Your task to perform on an android device: Go to wifi settings Image 0: 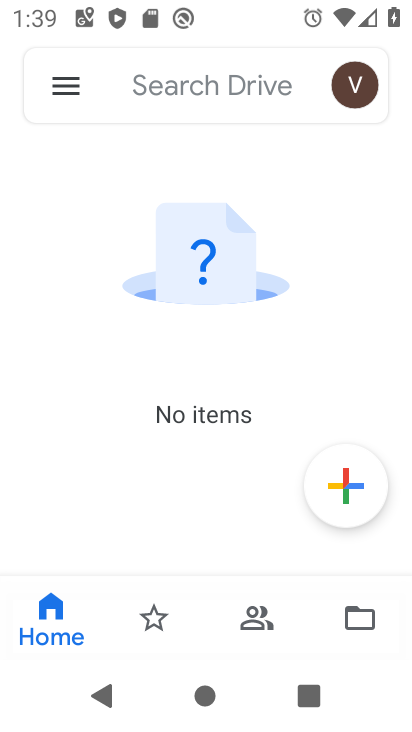
Step 0: press back button
Your task to perform on an android device: Go to wifi settings Image 1: 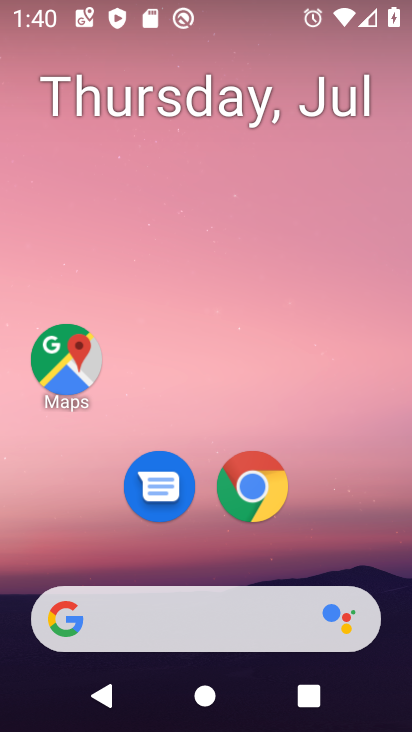
Step 1: drag from (66, 12) to (133, 315)
Your task to perform on an android device: Go to wifi settings Image 2: 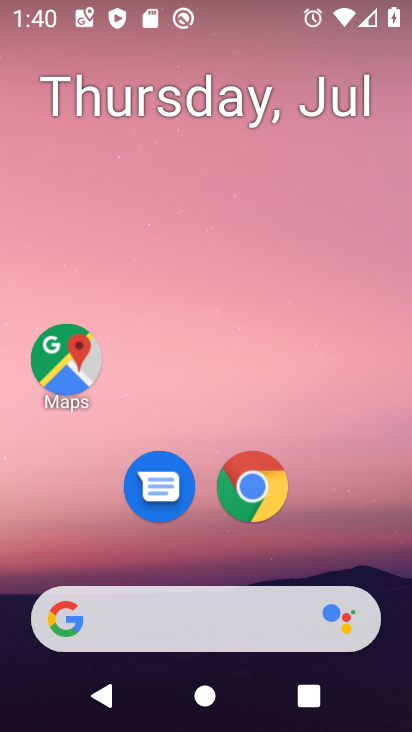
Step 2: drag from (119, 4) to (243, 551)
Your task to perform on an android device: Go to wifi settings Image 3: 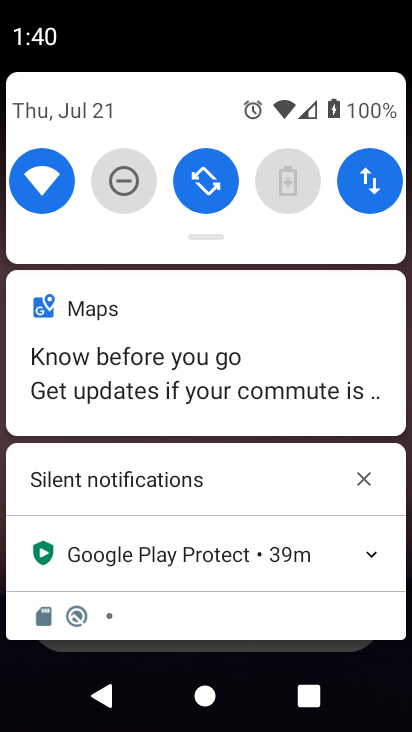
Step 3: click (38, 187)
Your task to perform on an android device: Go to wifi settings Image 4: 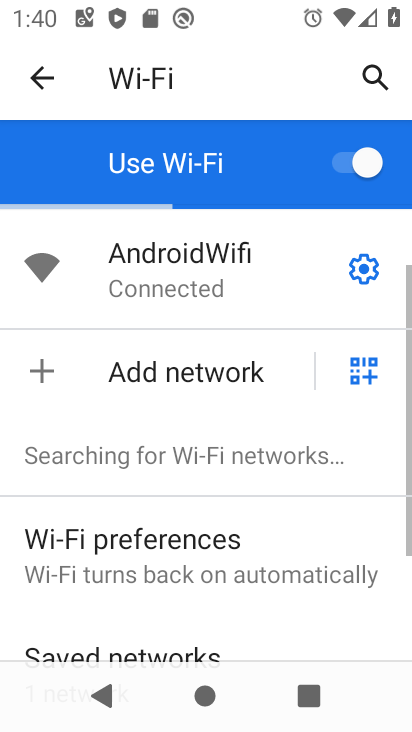
Step 4: task complete